Your task to perform on an android device: star an email in the gmail app Image 0: 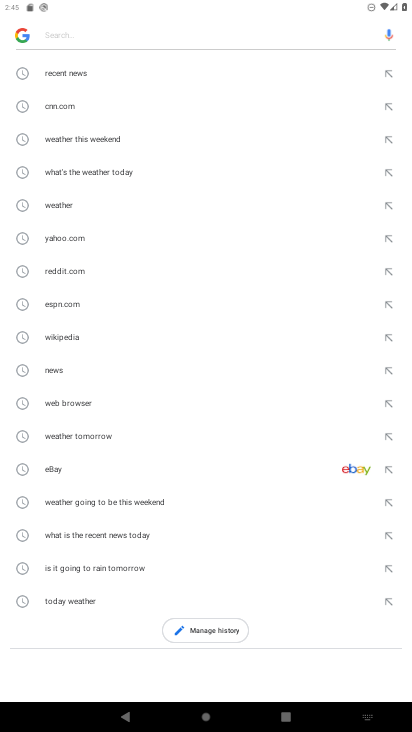
Step 0: press home button
Your task to perform on an android device: star an email in the gmail app Image 1: 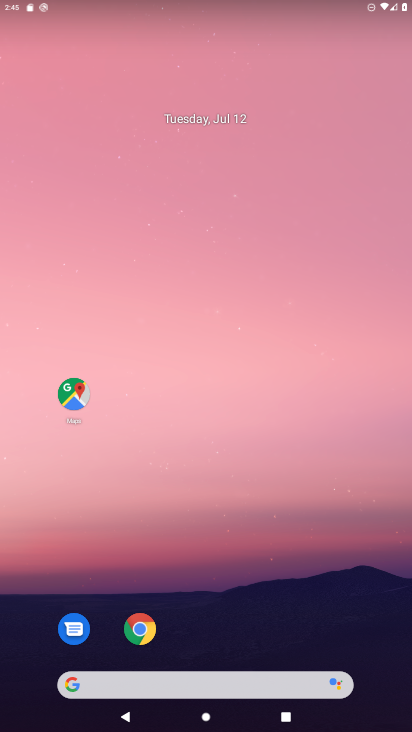
Step 1: drag from (173, 687) to (227, 268)
Your task to perform on an android device: star an email in the gmail app Image 2: 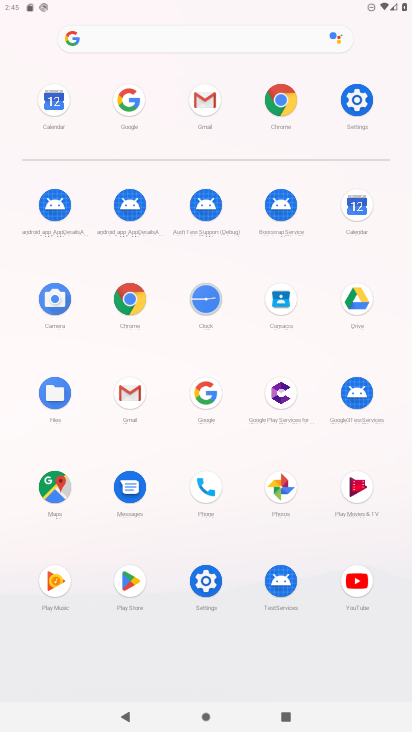
Step 2: click (204, 100)
Your task to perform on an android device: star an email in the gmail app Image 3: 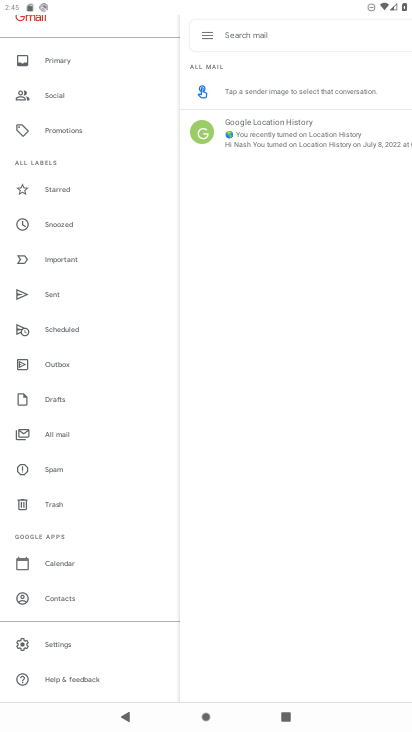
Step 3: click (309, 141)
Your task to perform on an android device: star an email in the gmail app Image 4: 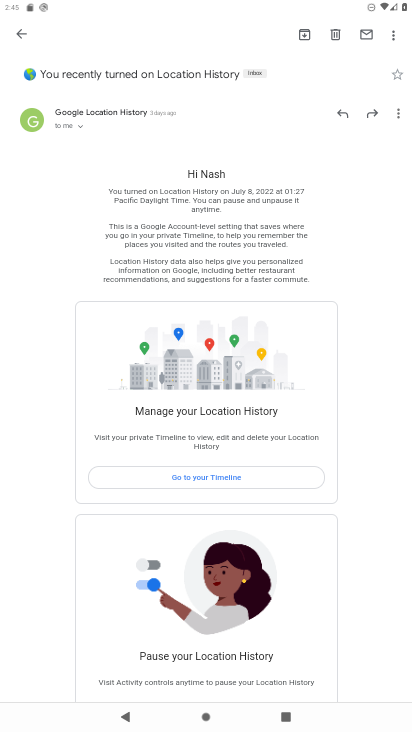
Step 4: click (397, 74)
Your task to perform on an android device: star an email in the gmail app Image 5: 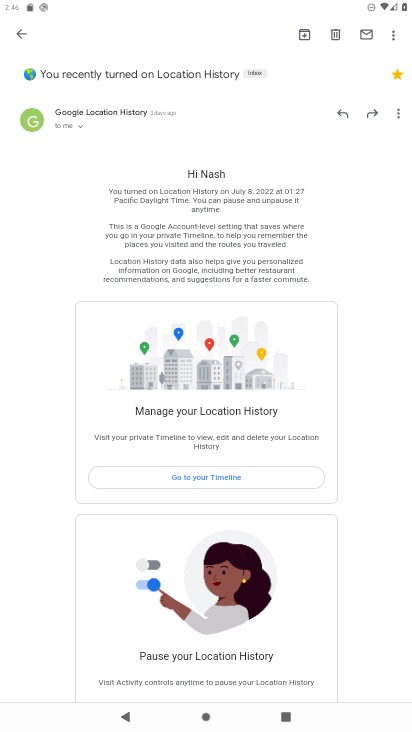
Step 5: task complete